Your task to perform on an android device: check battery use Image 0: 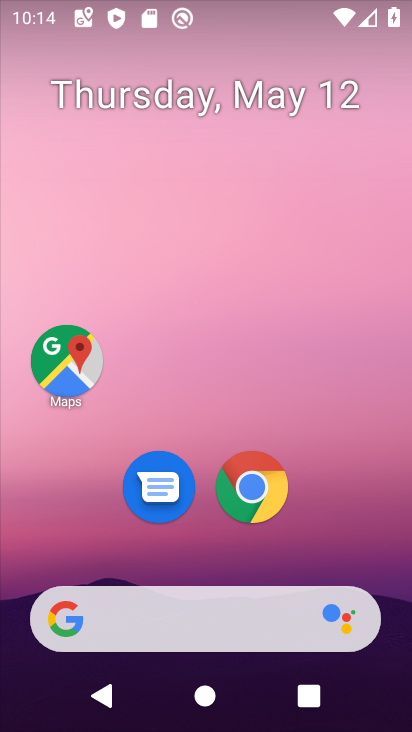
Step 0: drag from (24, 679) to (277, 225)
Your task to perform on an android device: check battery use Image 1: 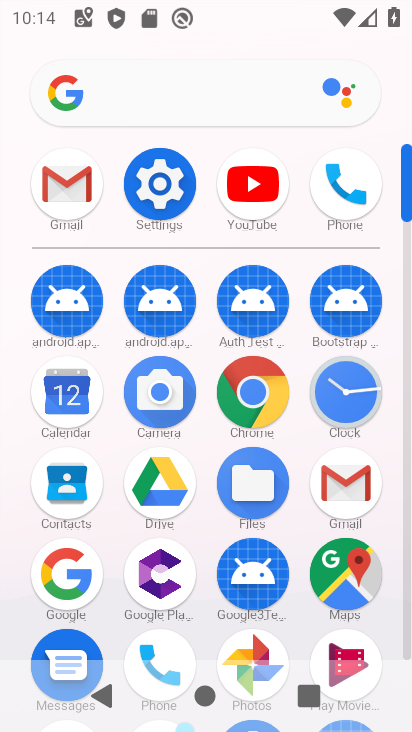
Step 1: click (150, 189)
Your task to perform on an android device: check battery use Image 2: 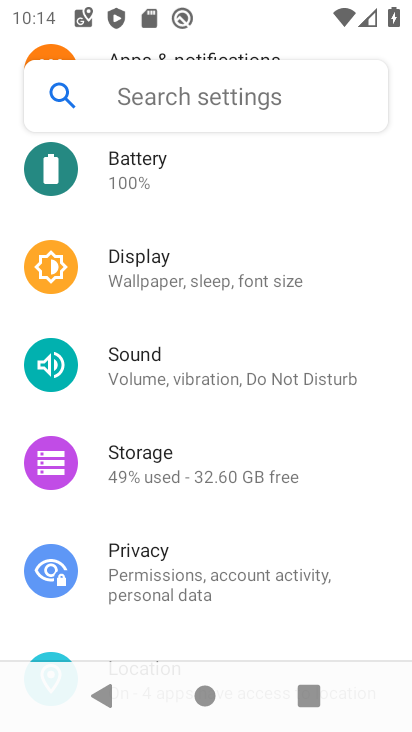
Step 2: drag from (139, 605) to (286, 234)
Your task to perform on an android device: check battery use Image 3: 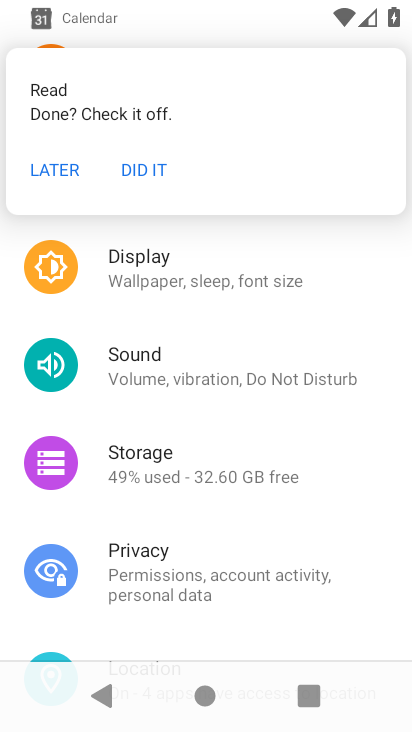
Step 3: drag from (15, 622) to (224, 243)
Your task to perform on an android device: check battery use Image 4: 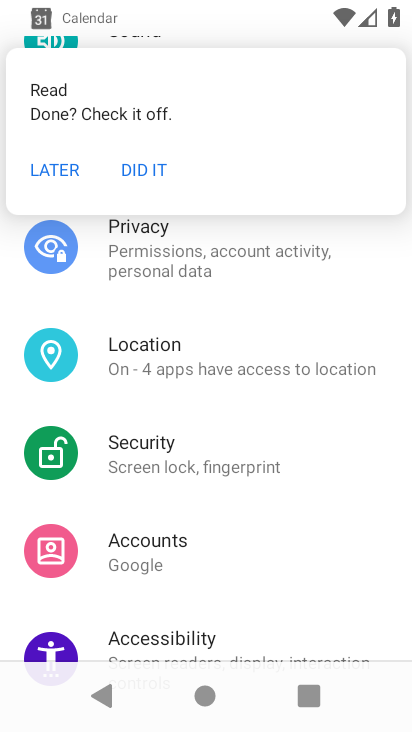
Step 4: click (42, 180)
Your task to perform on an android device: check battery use Image 5: 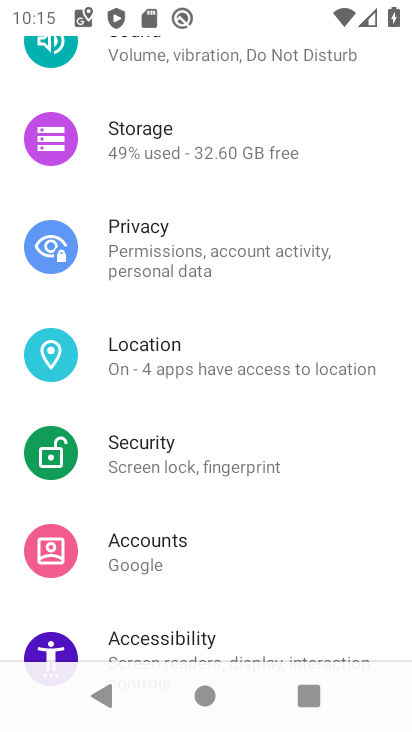
Step 5: drag from (84, 678) to (244, 190)
Your task to perform on an android device: check battery use Image 6: 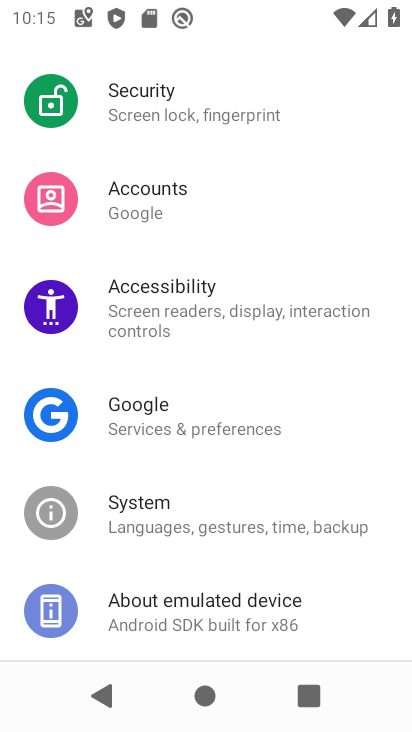
Step 6: drag from (173, 128) to (90, 643)
Your task to perform on an android device: check battery use Image 7: 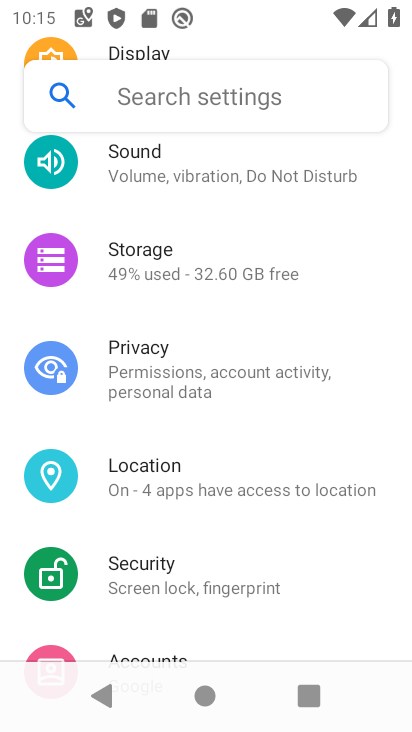
Step 7: drag from (175, 148) to (88, 545)
Your task to perform on an android device: check battery use Image 8: 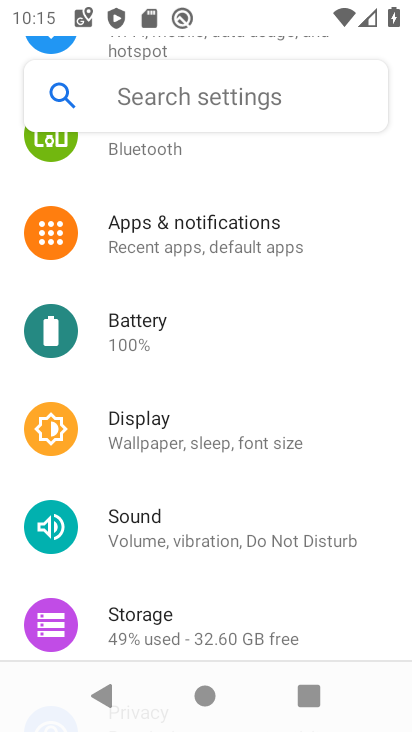
Step 8: click (106, 344)
Your task to perform on an android device: check battery use Image 9: 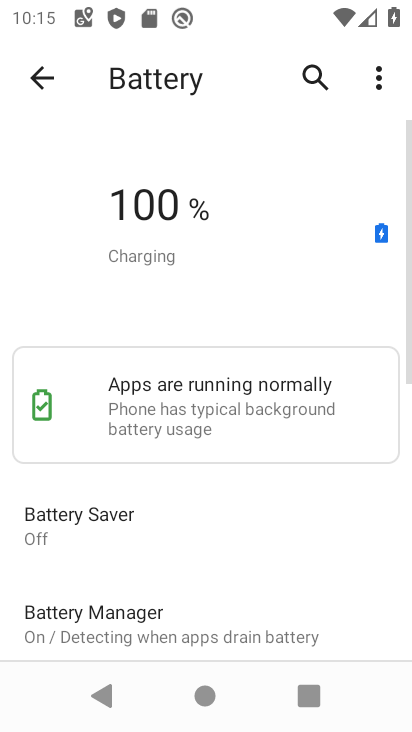
Step 9: task complete